Your task to perform on an android device: add a label to a message in the gmail app Image 0: 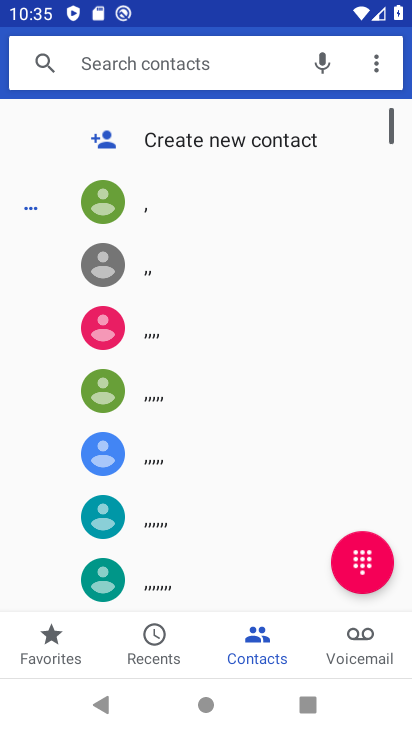
Step 0: press home button
Your task to perform on an android device: add a label to a message in the gmail app Image 1: 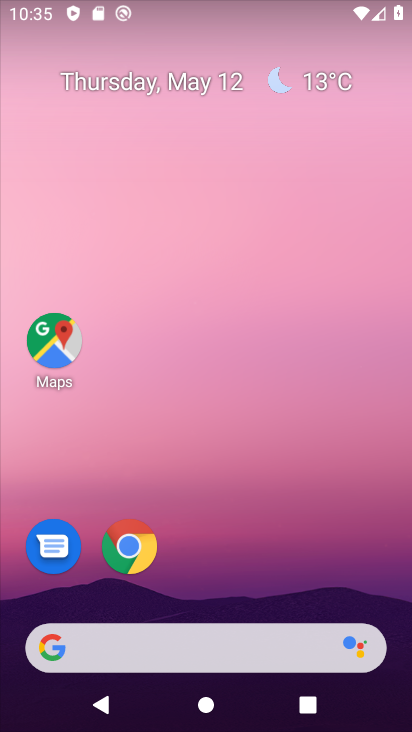
Step 1: drag from (256, 678) to (309, 178)
Your task to perform on an android device: add a label to a message in the gmail app Image 2: 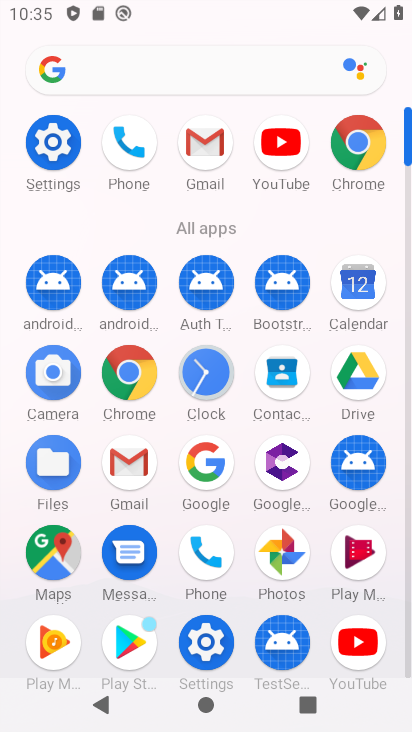
Step 2: click (136, 469)
Your task to perform on an android device: add a label to a message in the gmail app Image 3: 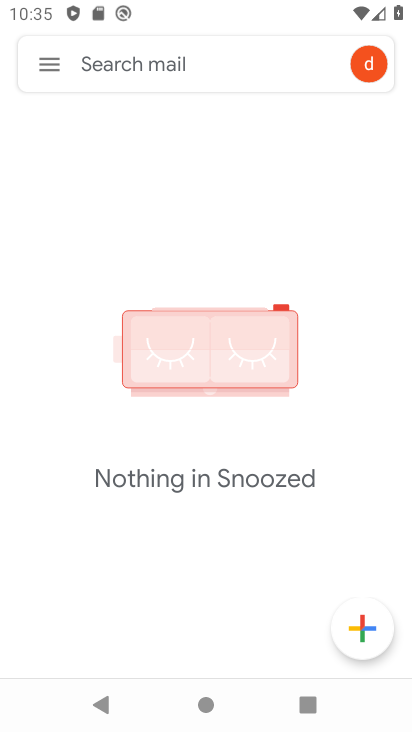
Step 3: click (48, 64)
Your task to perform on an android device: add a label to a message in the gmail app Image 4: 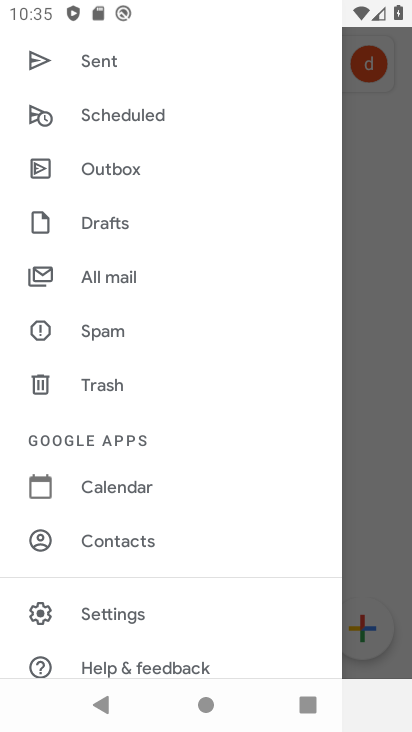
Step 4: click (106, 613)
Your task to perform on an android device: add a label to a message in the gmail app Image 5: 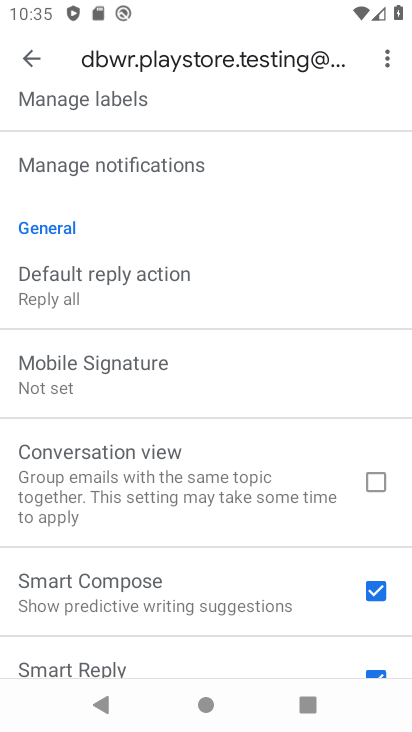
Step 5: drag from (152, 237) to (100, 446)
Your task to perform on an android device: add a label to a message in the gmail app Image 6: 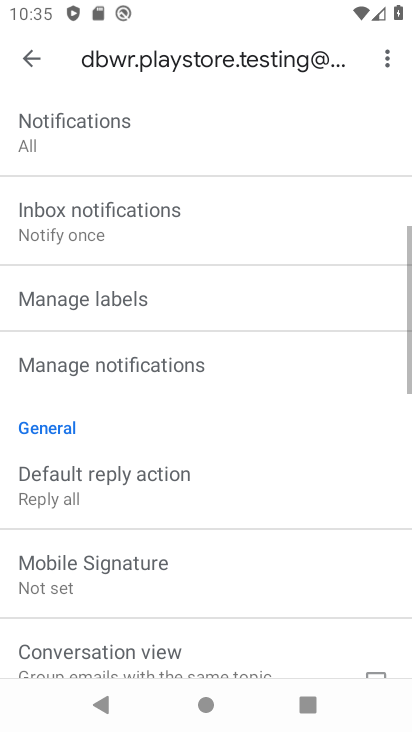
Step 6: click (73, 310)
Your task to perform on an android device: add a label to a message in the gmail app Image 7: 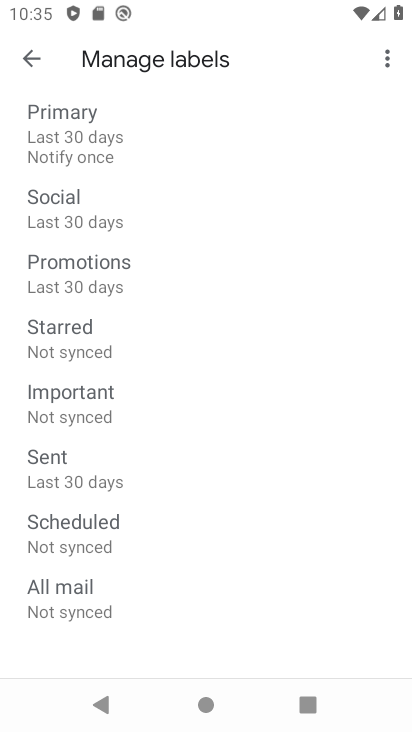
Step 7: click (80, 293)
Your task to perform on an android device: add a label to a message in the gmail app Image 8: 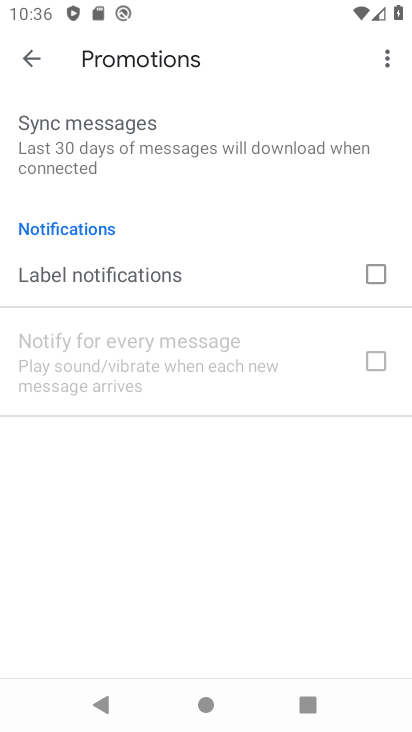
Step 8: task complete